Your task to perform on an android device: add a contact Image 0: 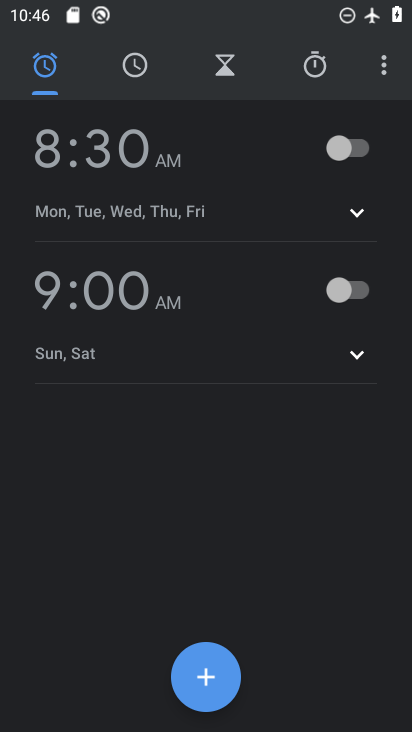
Step 0: press home button
Your task to perform on an android device: add a contact Image 1: 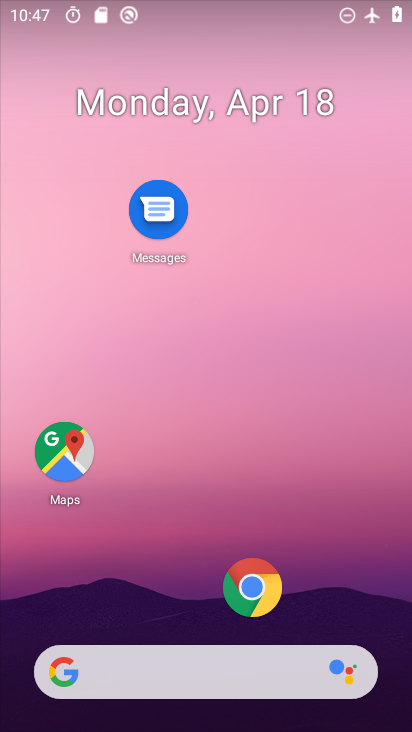
Step 1: drag from (165, 615) to (243, 101)
Your task to perform on an android device: add a contact Image 2: 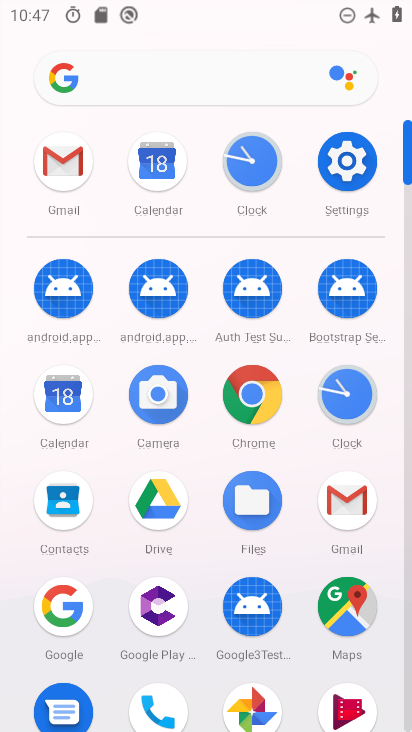
Step 2: click (59, 520)
Your task to perform on an android device: add a contact Image 3: 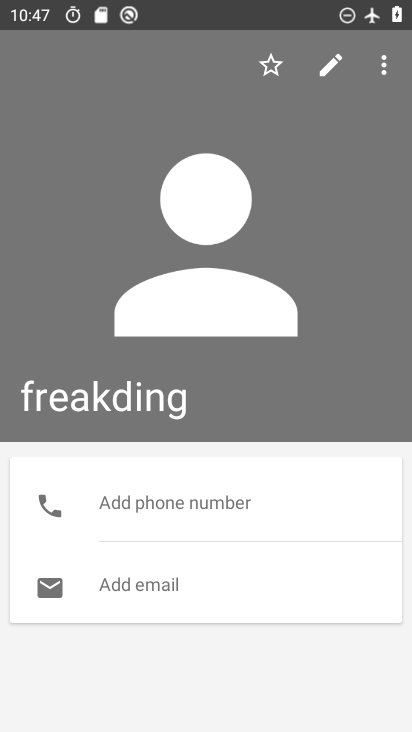
Step 3: press back button
Your task to perform on an android device: add a contact Image 4: 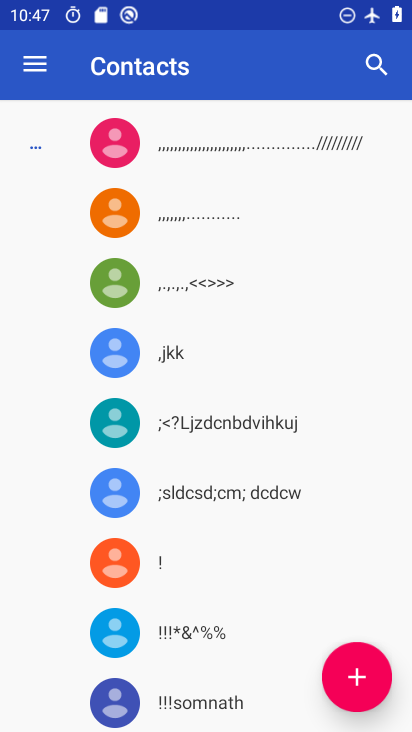
Step 4: click (357, 682)
Your task to perform on an android device: add a contact Image 5: 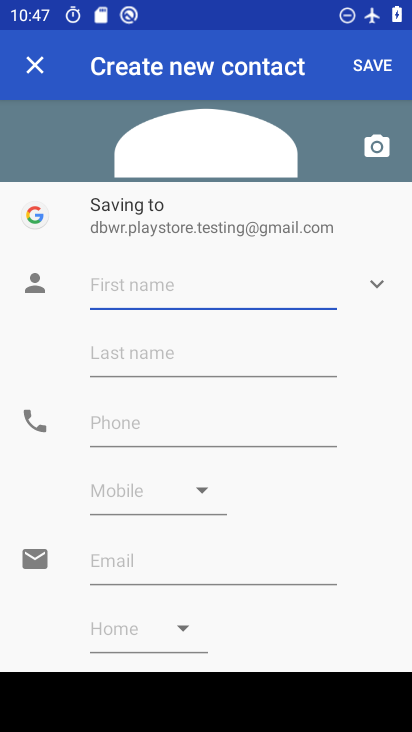
Step 5: type "flick"
Your task to perform on an android device: add a contact Image 6: 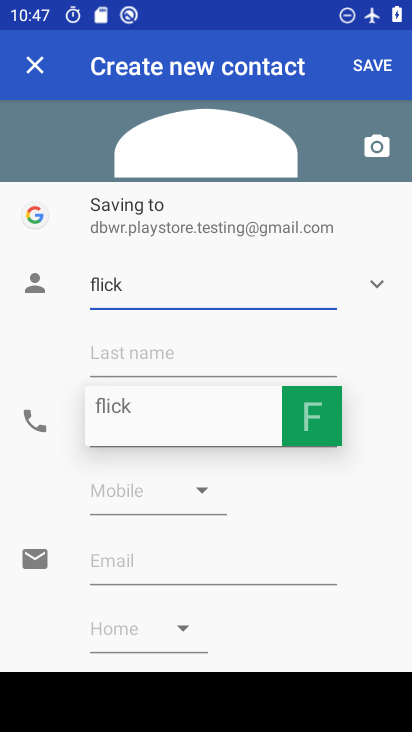
Step 6: click (366, 62)
Your task to perform on an android device: add a contact Image 7: 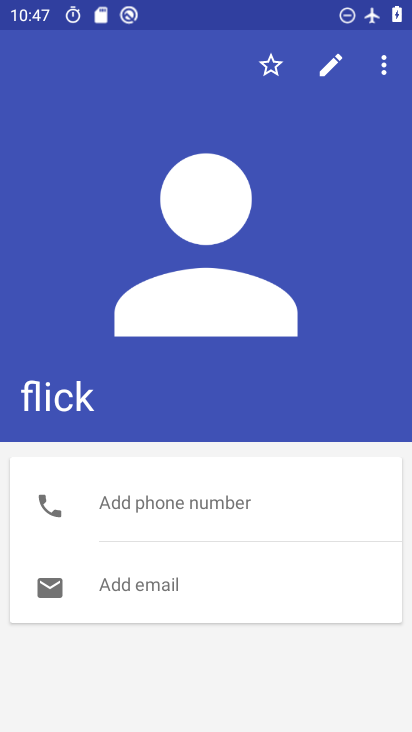
Step 7: task complete